Your task to perform on an android device: Open Chrome and go to settings Image 0: 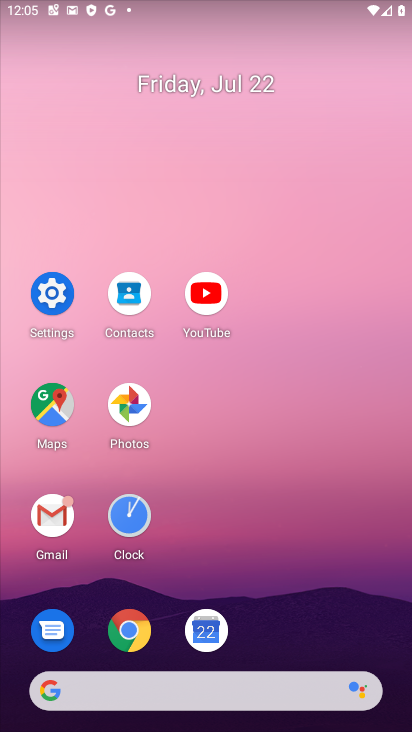
Step 0: click (123, 628)
Your task to perform on an android device: Open Chrome and go to settings Image 1: 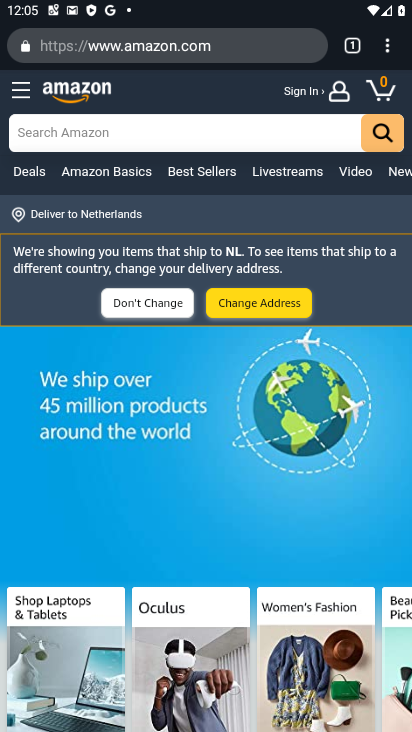
Step 1: click (391, 41)
Your task to perform on an android device: Open Chrome and go to settings Image 2: 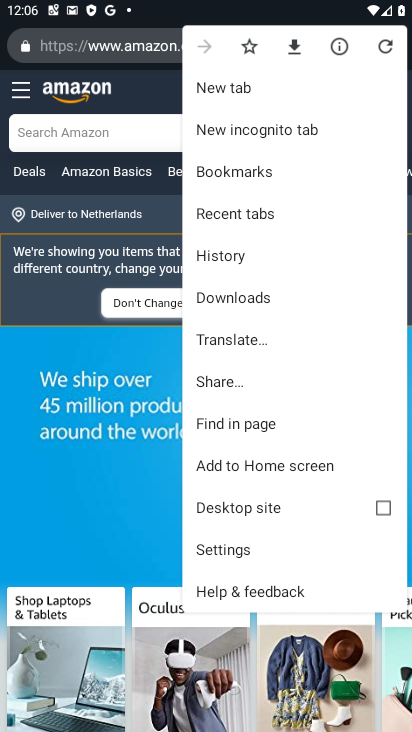
Step 2: click (227, 553)
Your task to perform on an android device: Open Chrome and go to settings Image 3: 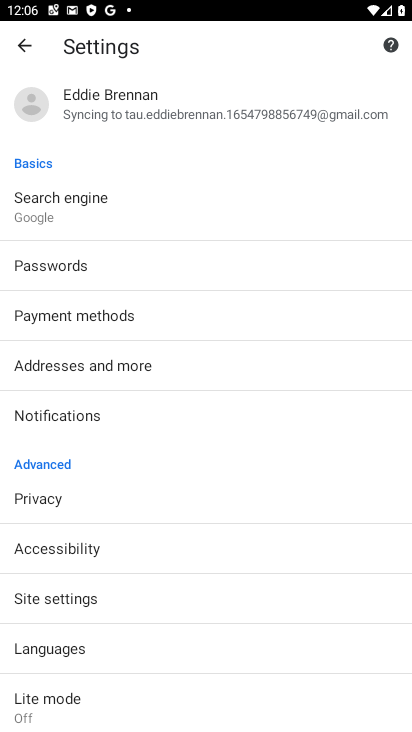
Step 3: task complete